Your task to perform on an android device: Search for Italian restaurants on Maps Image 0: 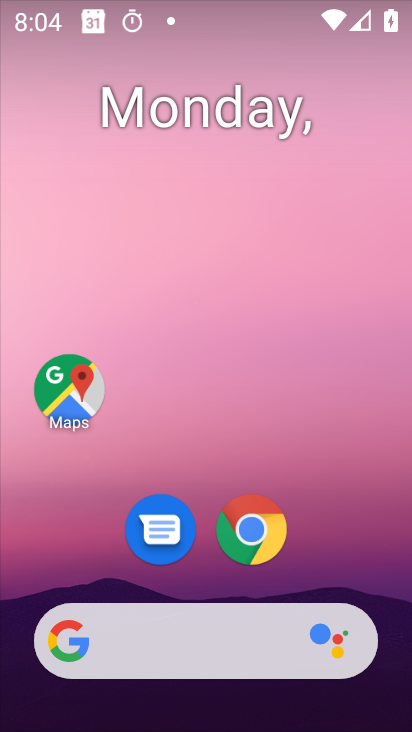
Step 0: click (63, 392)
Your task to perform on an android device: Search for Italian restaurants on Maps Image 1: 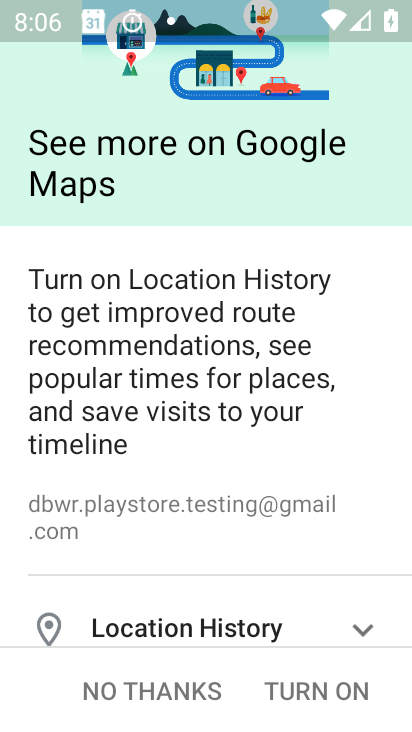
Step 1: click (191, 687)
Your task to perform on an android device: Search for Italian restaurants on Maps Image 2: 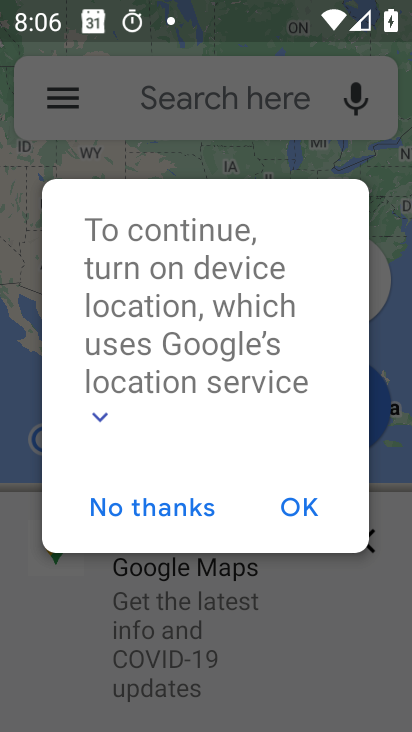
Step 2: click (195, 504)
Your task to perform on an android device: Search for Italian restaurants on Maps Image 3: 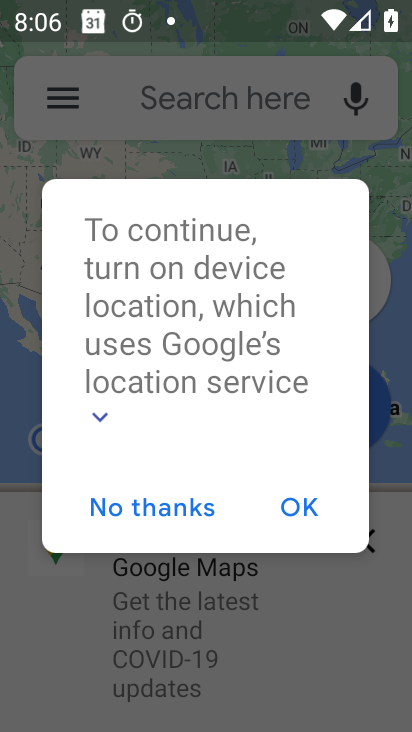
Step 3: click (285, 505)
Your task to perform on an android device: Search for Italian restaurants on Maps Image 4: 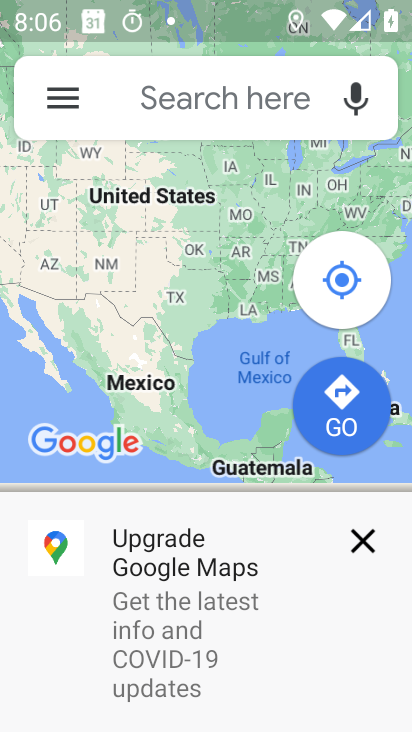
Step 4: click (207, 87)
Your task to perform on an android device: Search for Italian restaurants on Maps Image 5: 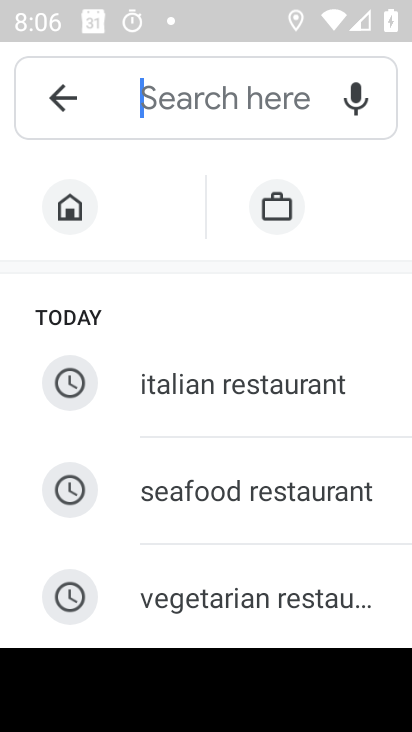
Step 5: click (219, 382)
Your task to perform on an android device: Search for Italian restaurants on Maps Image 6: 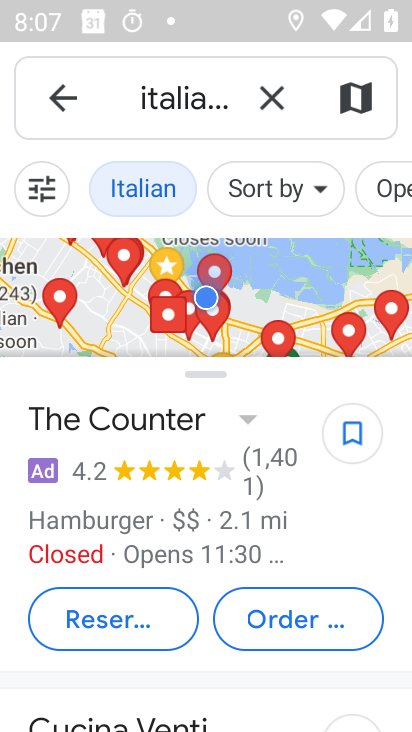
Step 6: task complete